Your task to perform on an android device: open app "Nova Launcher" (install if not already installed) Image 0: 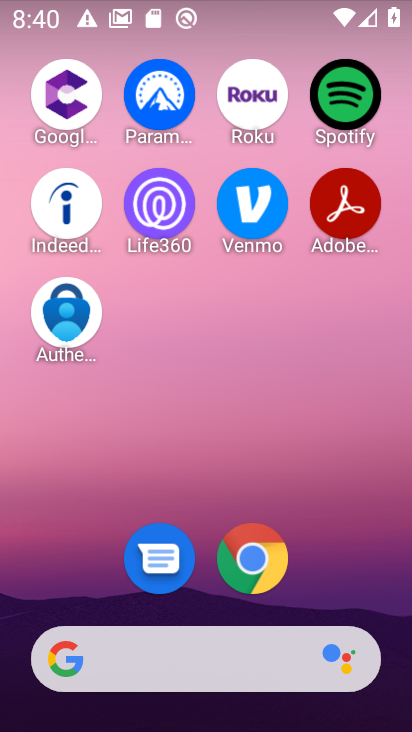
Step 0: click (400, 2)
Your task to perform on an android device: open app "Nova Launcher" (install if not already installed) Image 1: 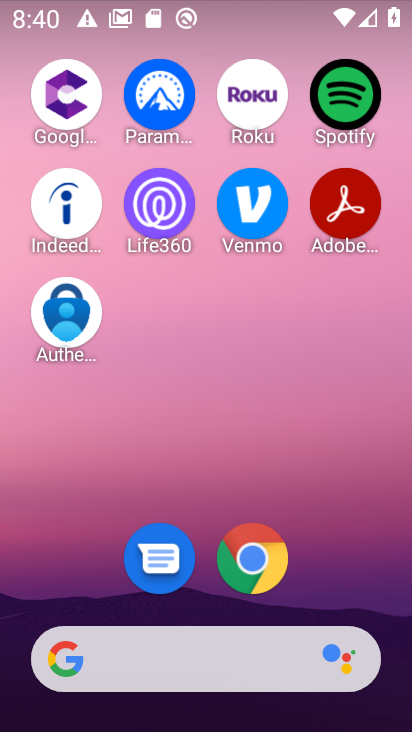
Step 1: drag from (212, 638) to (177, 201)
Your task to perform on an android device: open app "Nova Launcher" (install if not already installed) Image 2: 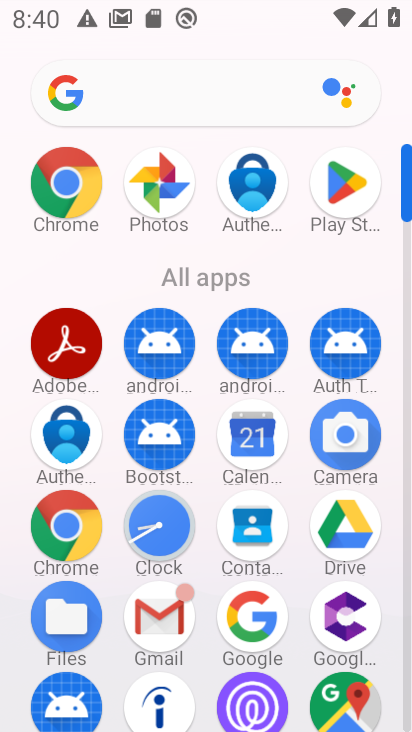
Step 2: click (349, 167)
Your task to perform on an android device: open app "Nova Launcher" (install if not already installed) Image 3: 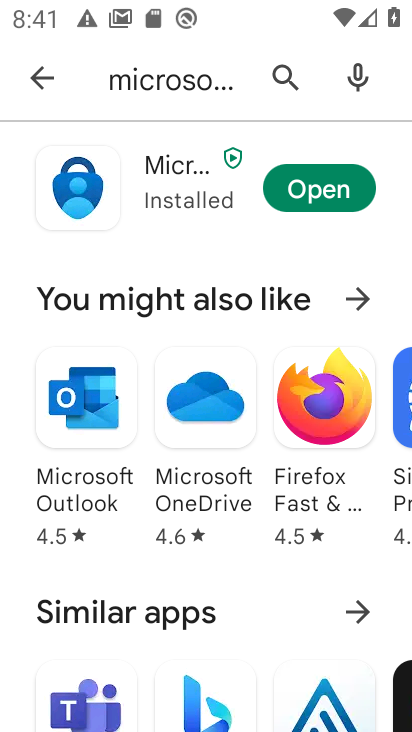
Step 3: click (276, 76)
Your task to perform on an android device: open app "Nova Launcher" (install if not already installed) Image 4: 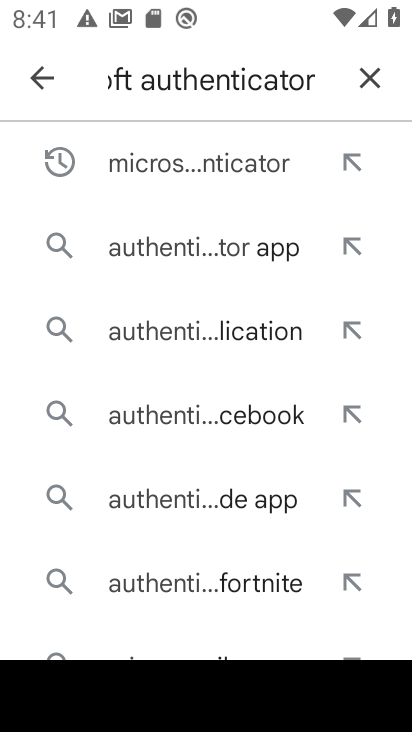
Step 4: click (367, 72)
Your task to perform on an android device: open app "Nova Launcher" (install if not already installed) Image 5: 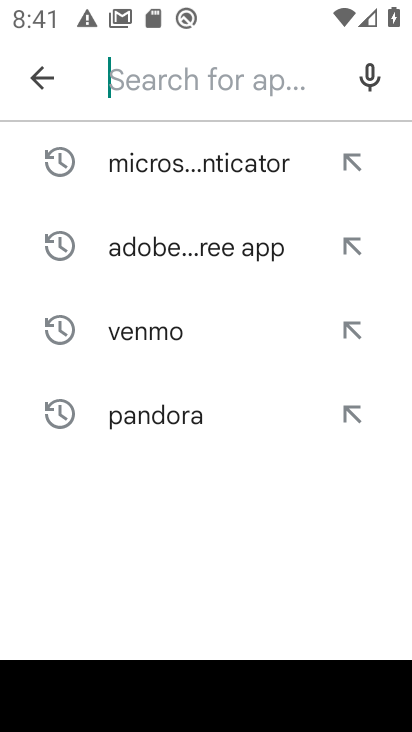
Step 5: type "nova launcher"
Your task to perform on an android device: open app "Nova Launcher" (install if not already installed) Image 6: 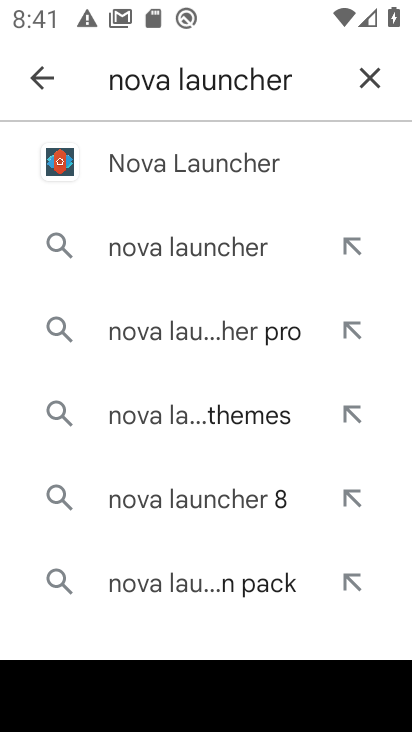
Step 6: click (160, 159)
Your task to perform on an android device: open app "Nova Launcher" (install if not already installed) Image 7: 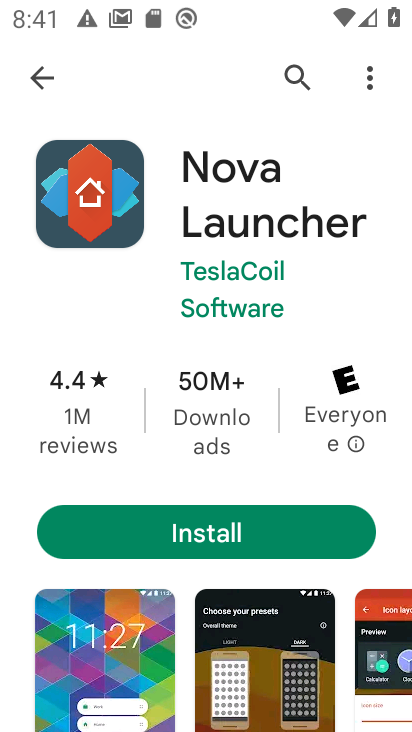
Step 7: click (158, 548)
Your task to perform on an android device: open app "Nova Launcher" (install if not already installed) Image 8: 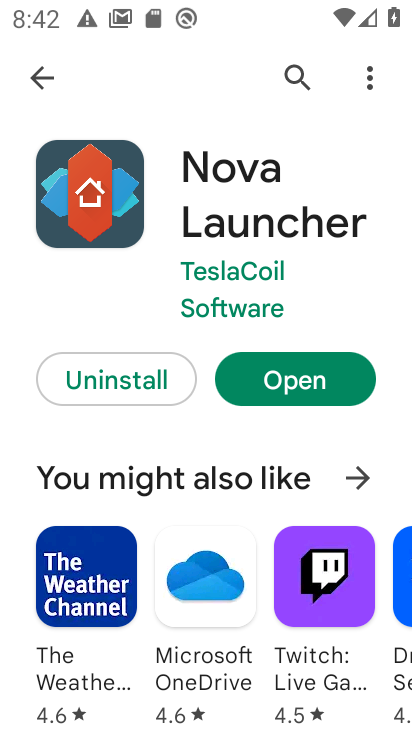
Step 8: click (299, 366)
Your task to perform on an android device: open app "Nova Launcher" (install if not already installed) Image 9: 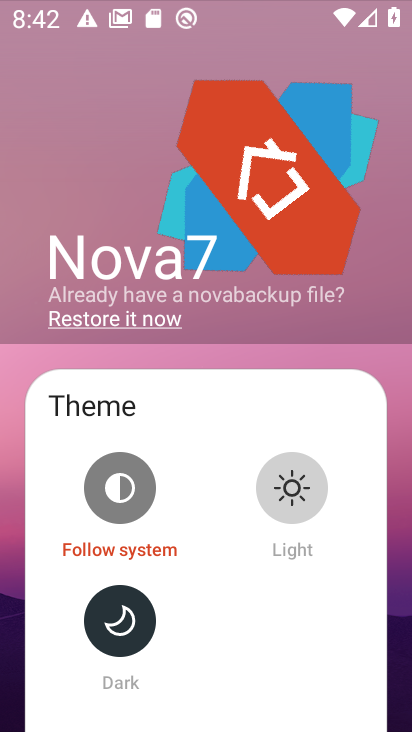
Step 9: task complete